Your task to perform on an android device: Go to sound settings Image 0: 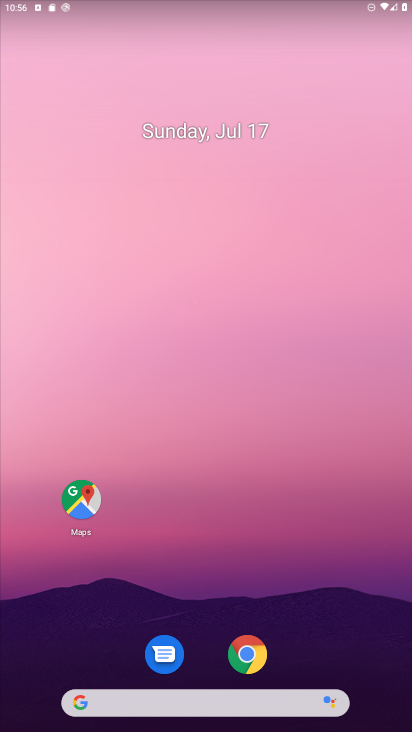
Step 0: drag from (220, 608) to (198, 111)
Your task to perform on an android device: Go to sound settings Image 1: 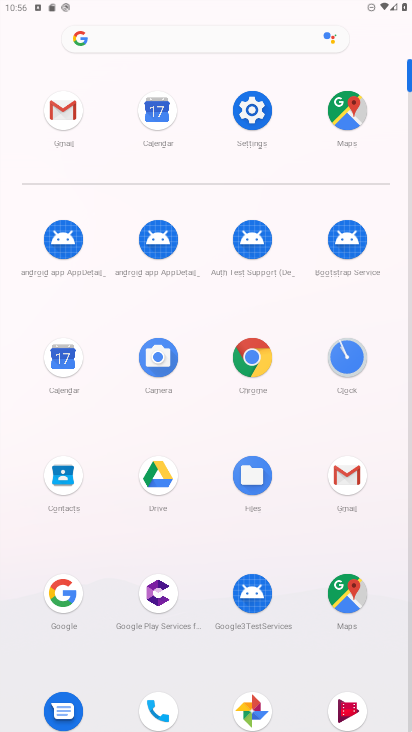
Step 1: click (257, 113)
Your task to perform on an android device: Go to sound settings Image 2: 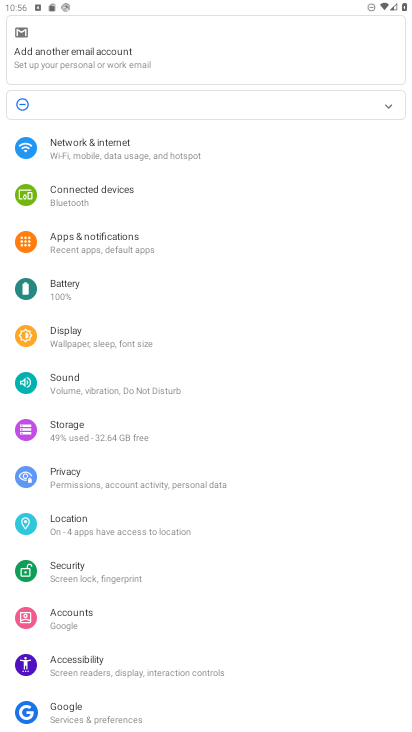
Step 2: click (146, 371)
Your task to perform on an android device: Go to sound settings Image 3: 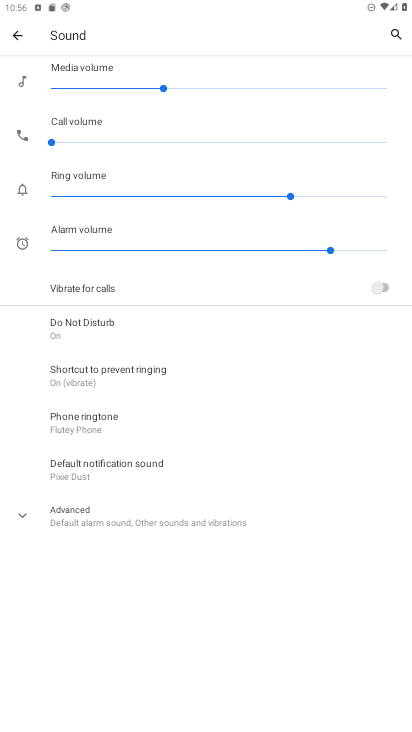
Step 3: task complete